Your task to perform on an android device: When is my next meeting? Image 0: 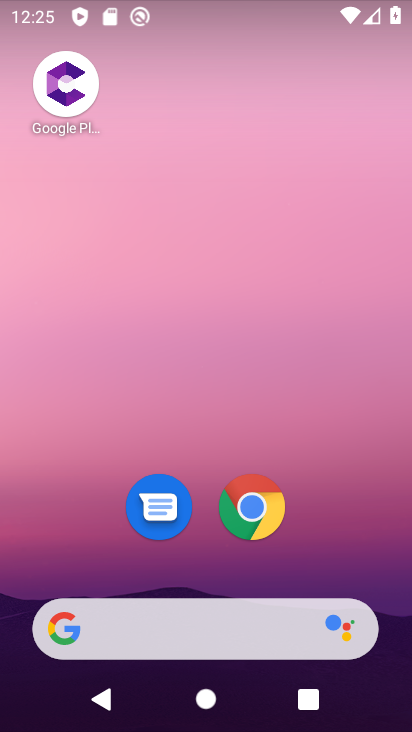
Step 0: drag from (374, 581) to (3, 269)
Your task to perform on an android device: When is my next meeting? Image 1: 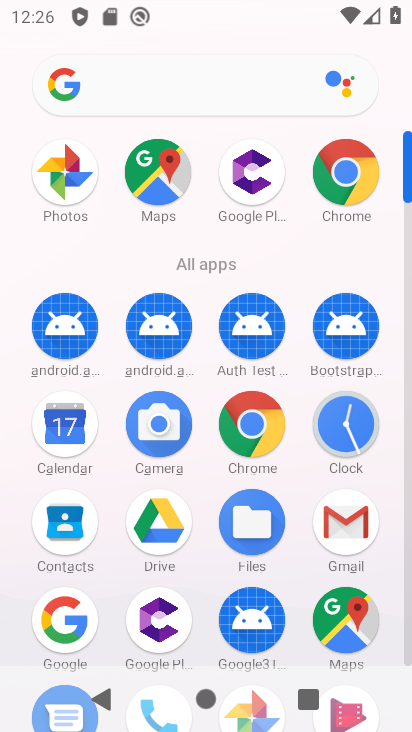
Step 1: click (72, 412)
Your task to perform on an android device: When is my next meeting? Image 2: 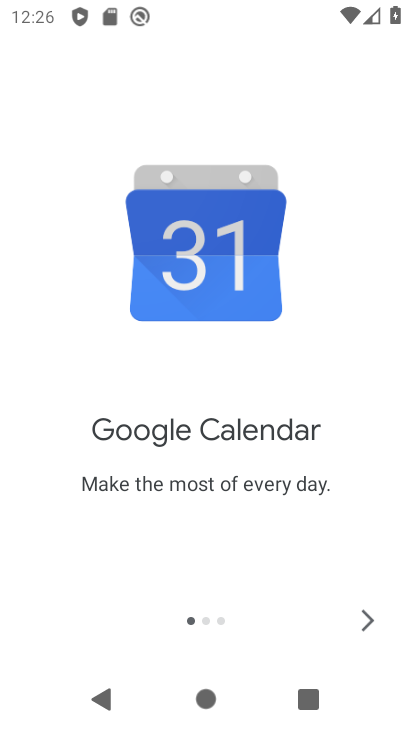
Step 2: click (359, 621)
Your task to perform on an android device: When is my next meeting? Image 3: 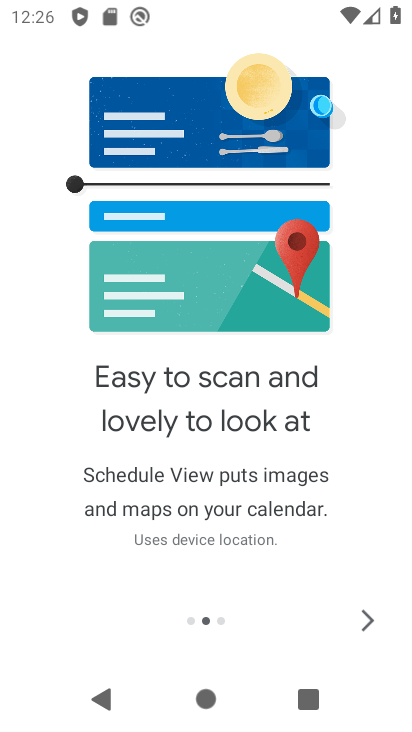
Step 3: click (359, 621)
Your task to perform on an android device: When is my next meeting? Image 4: 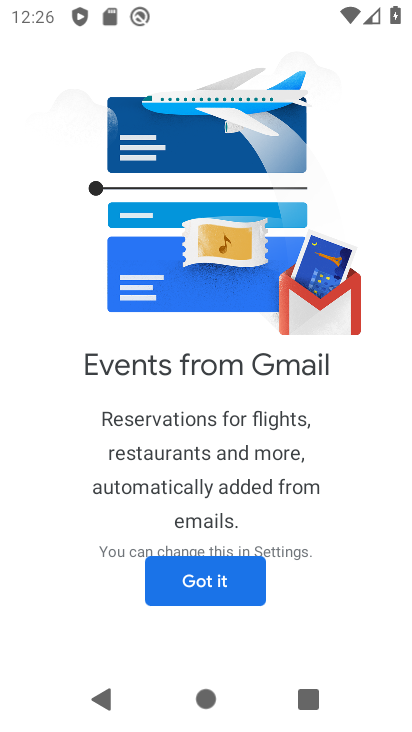
Step 4: click (239, 580)
Your task to perform on an android device: When is my next meeting? Image 5: 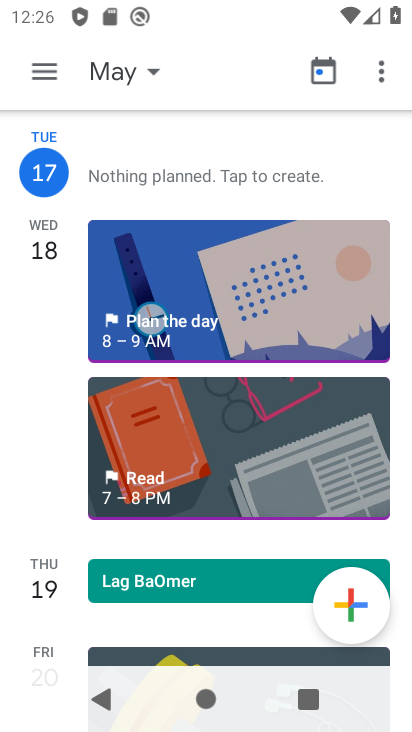
Step 5: task complete